Your task to perform on an android device: Go to eBay Image 0: 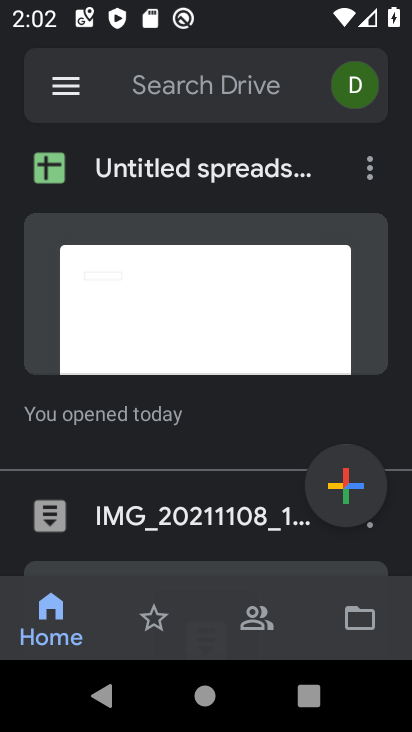
Step 0: press home button
Your task to perform on an android device: Go to eBay Image 1: 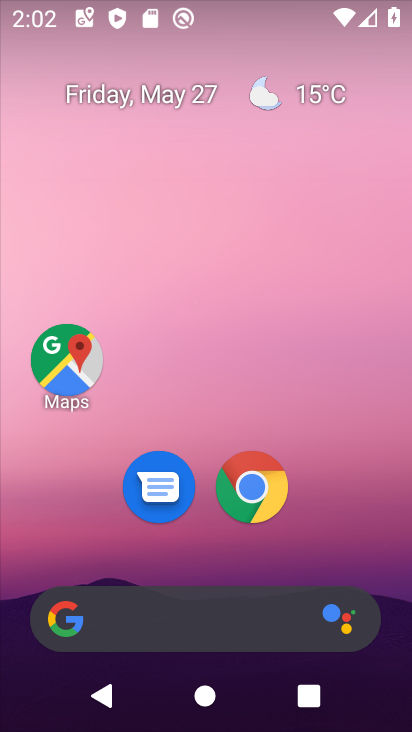
Step 1: click (239, 470)
Your task to perform on an android device: Go to eBay Image 2: 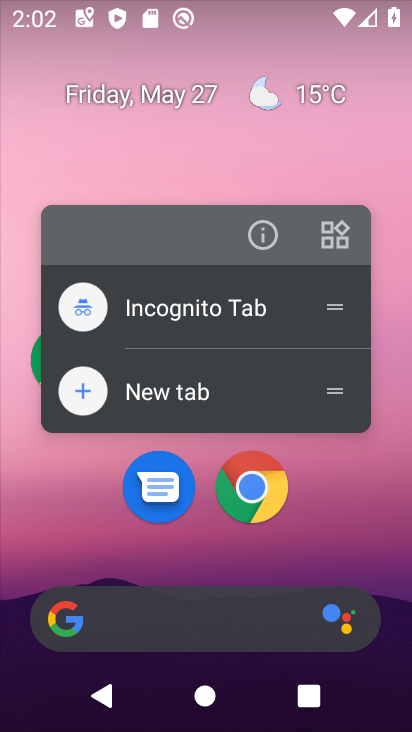
Step 2: click (104, 399)
Your task to perform on an android device: Go to eBay Image 3: 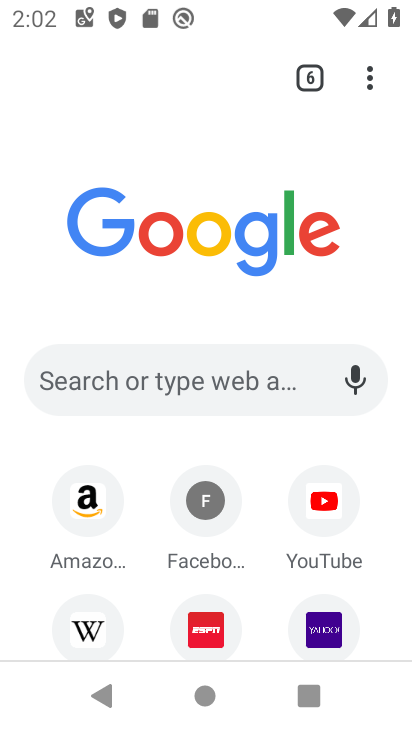
Step 3: drag from (266, 394) to (271, 207)
Your task to perform on an android device: Go to eBay Image 4: 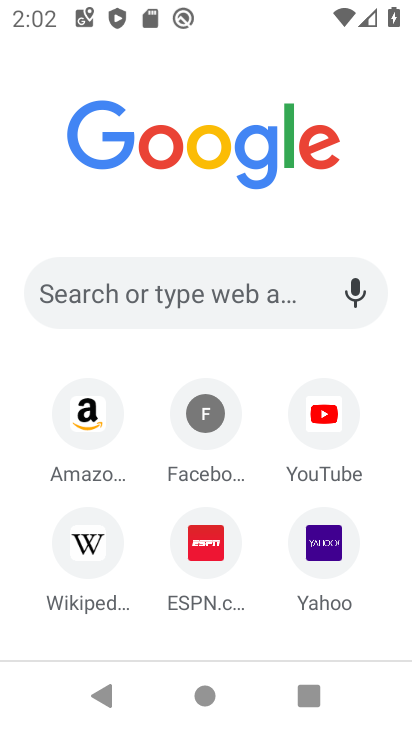
Step 4: click (223, 288)
Your task to perform on an android device: Go to eBay Image 5: 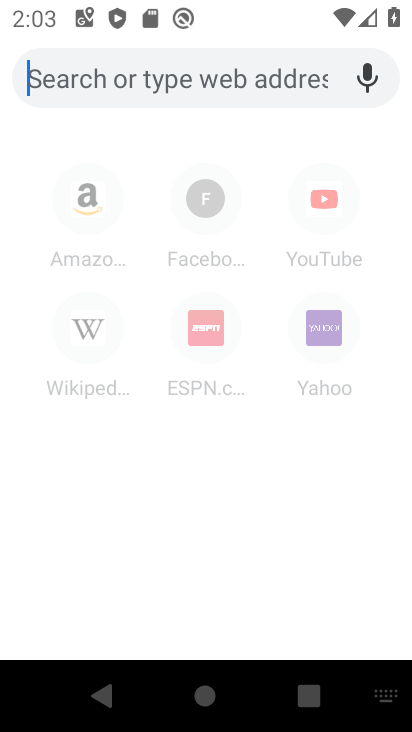
Step 5: type "ebay"
Your task to perform on an android device: Go to eBay Image 6: 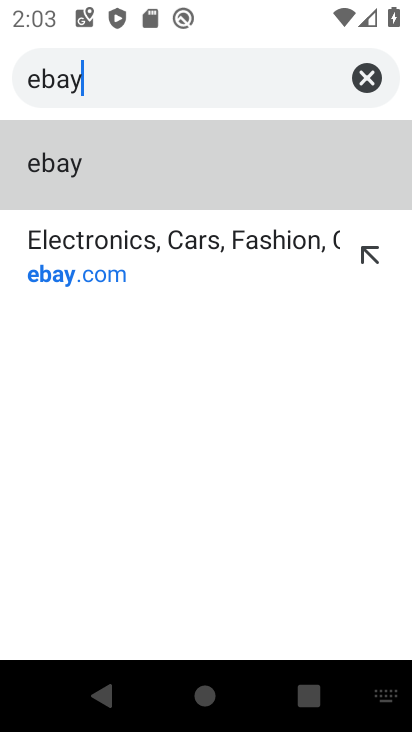
Step 6: click (206, 169)
Your task to perform on an android device: Go to eBay Image 7: 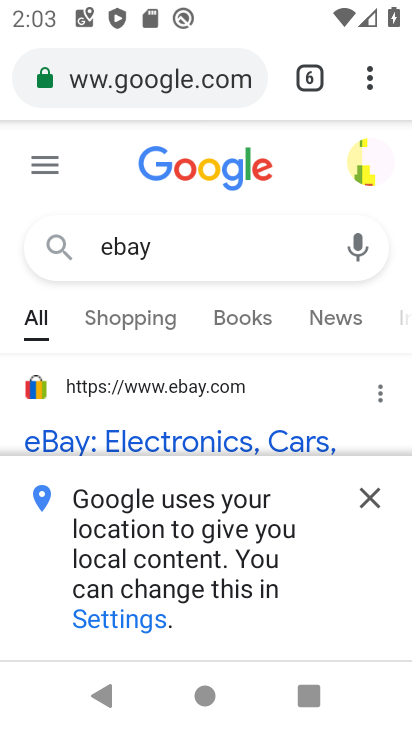
Step 7: task complete